Your task to perform on an android device: remove spam from my inbox in the gmail app Image 0: 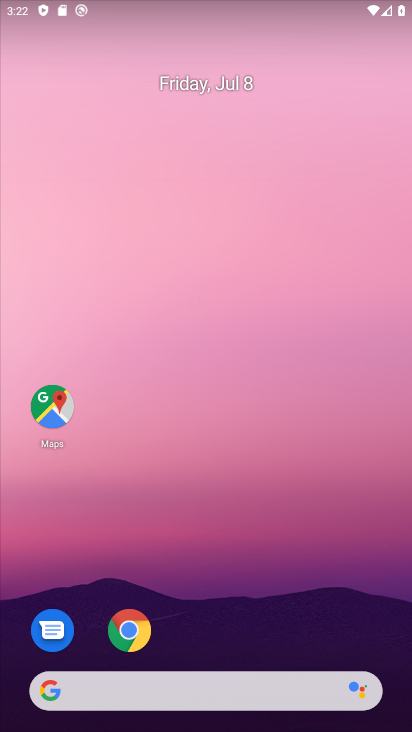
Step 0: drag from (216, 647) to (197, 32)
Your task to perform on an android device: remove spam from my inbox in the gmail app Image 1: 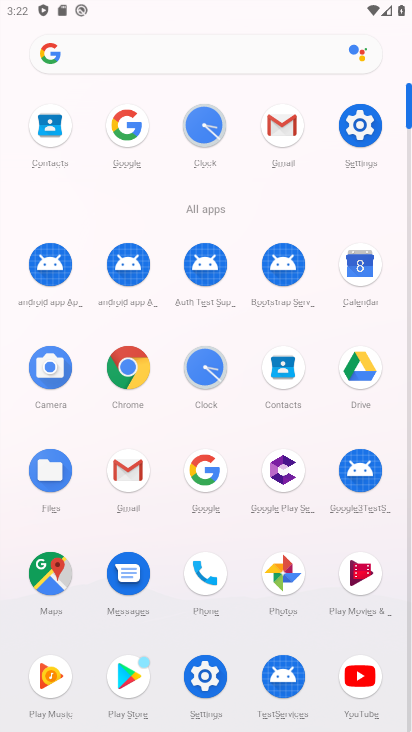
Step 1: click (278, 119)
Your task to perform on an android device: remove spam from my inbox in the gmail app Image 2: 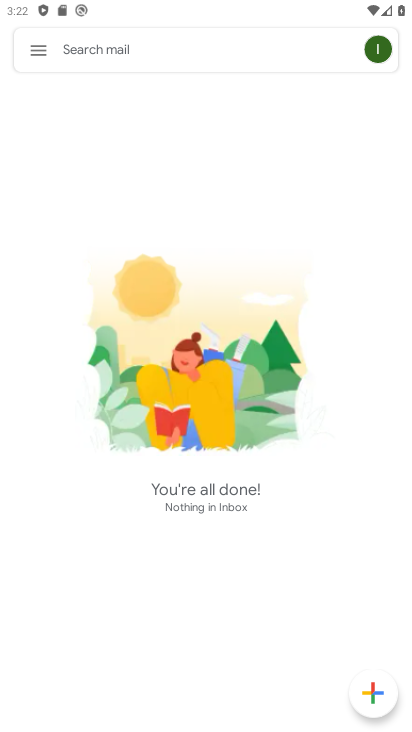
Step 2: click (33, 48)
Your task to perform on an android device: remove spam from my inbox in the gmail app Image 3: 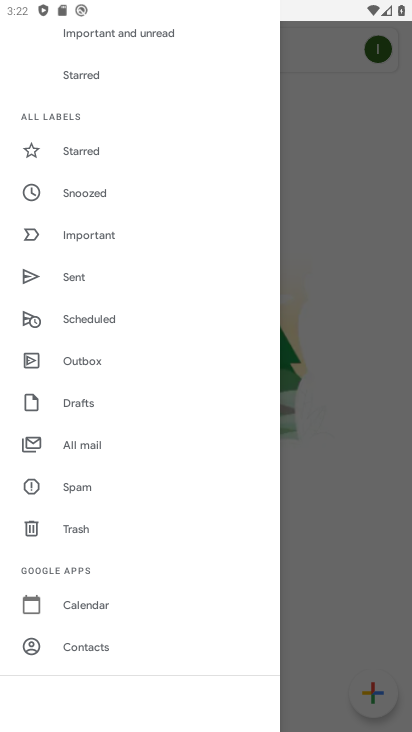
Step 3: click (74, 485)
Your task to perform on an android device: remove spam from my inbox in the gmail app Image 4: 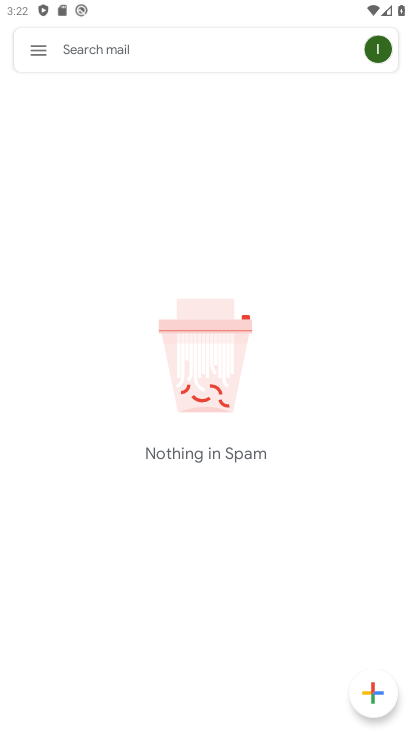
Step 4: task complete